Your task to perform on an android device: move an email to a new category in the gmail app Image 0: 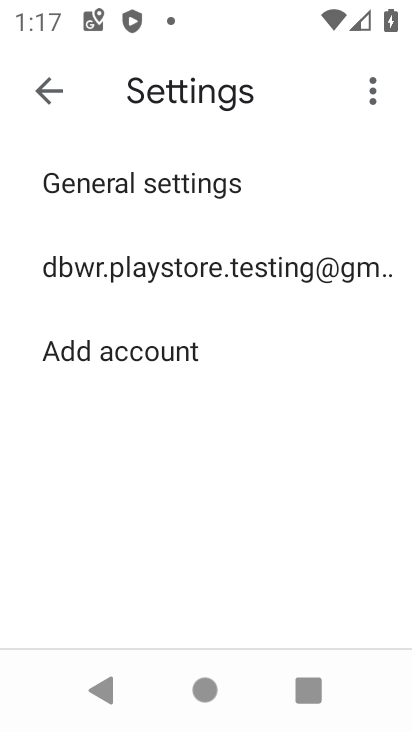
Step 0: press home button
Your task to perform on an android device: move an email to a new category in the gmail app Image 1: 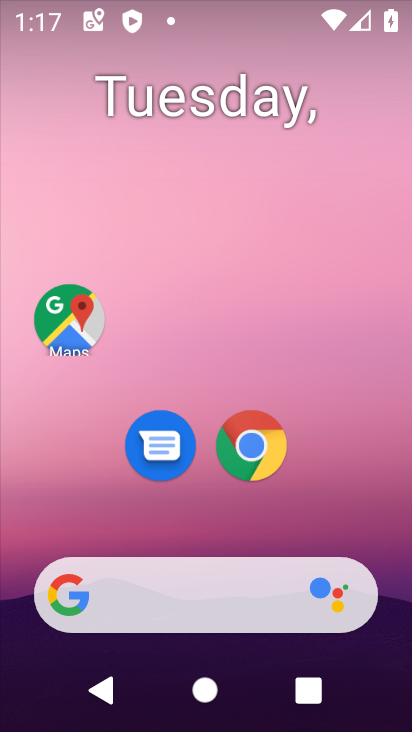
Step 1: drag from (365, 469) to (390, 42)
Your task to perform on an android device: move an email to a new category in the gmail app Image 2: 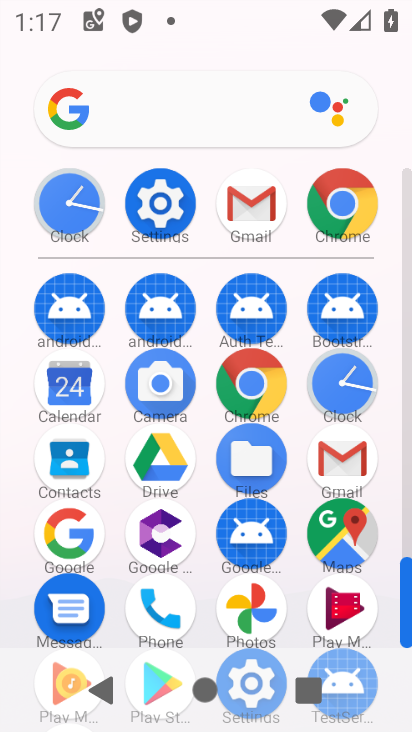
Step 2: click (249, 217)
Your task to perform on an android device: move an email to a new category in the gmail app Image 3: 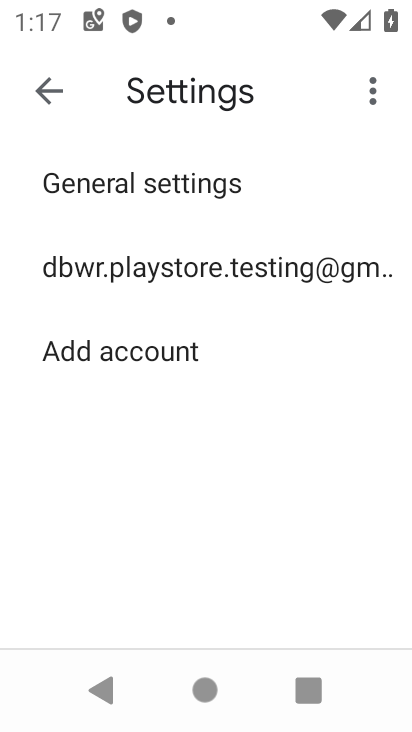
Step 3: click (52, 82)
Your task to perform on an android device: move an email to a new category in the gmail app Image 4: 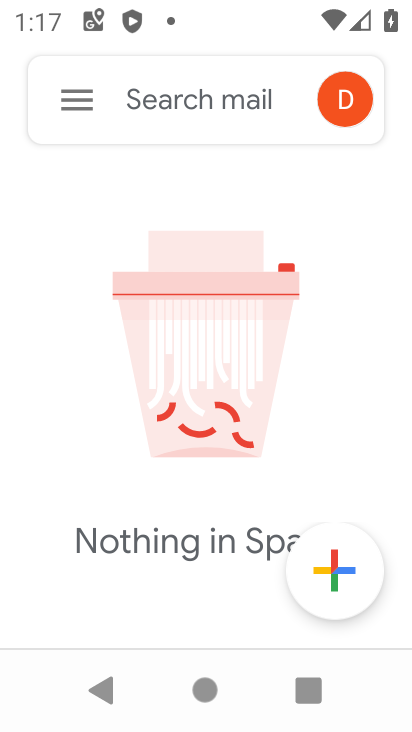
Step 4: click (66, 106)
Your task to perform on an android device: move an email to a new category in the gmail app Image 5: 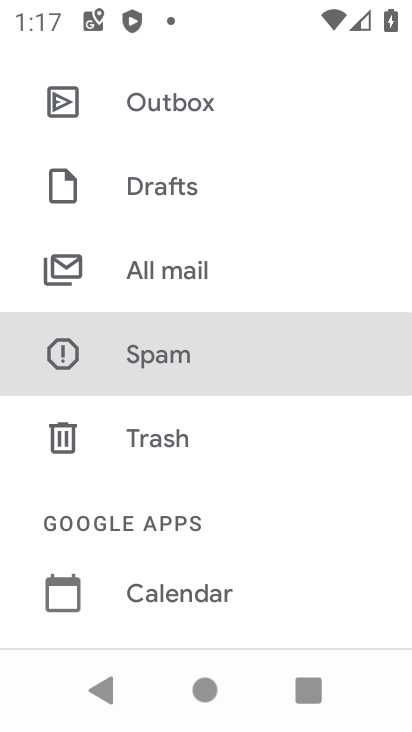
Step 5: drag from (249, 628) to (198, 199)
Your task to perform on an android device: move an email to a new category in the gmail app Image 6: 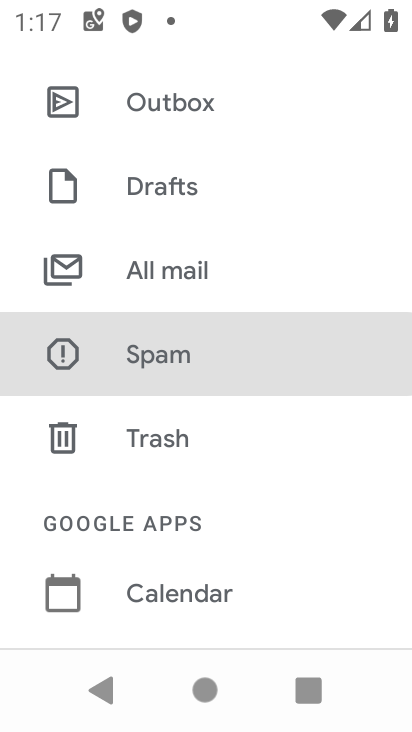
Step 6: drag from (196, 502) to (192, 160)
Your task to perform on an android device: move an email to a new category in the gmail app Image 7: 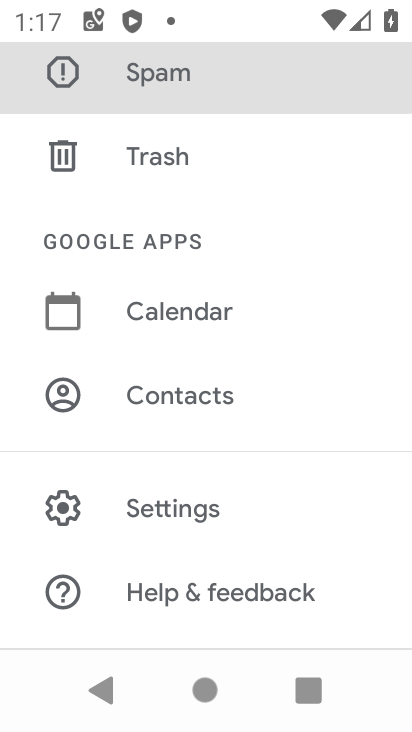
Step 7: click (143, 503)
Your task to perform on an android device: move an email to a new category in the gmail app Image 8: 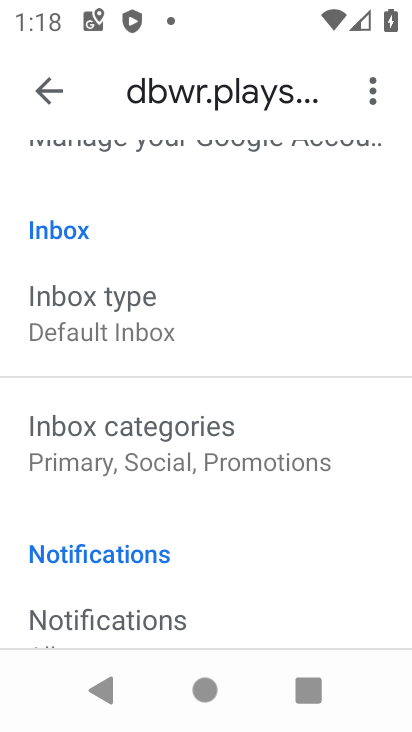
Step 8: click (54, 85)
Your task to perform on an android device: move an email to a new category in the gmail app Image 9: 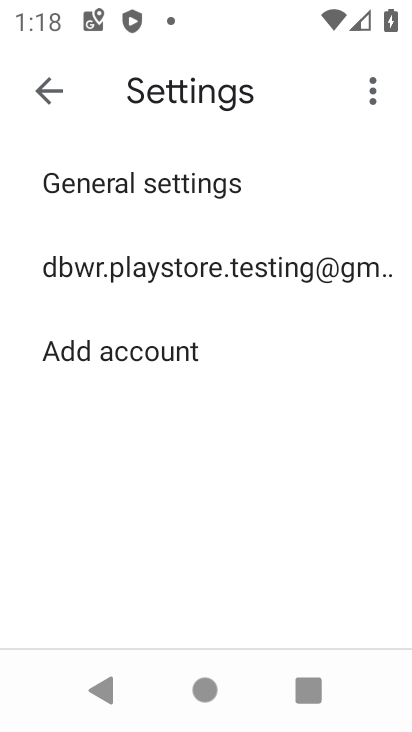
Step 9: click (54, 83)
Your task to perform on an android device: move an email to a new category in the gmail app Image 10: 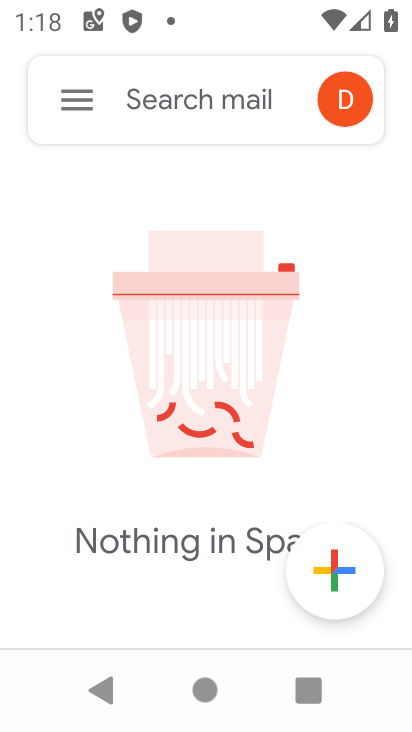
Step 10: click (73, 117)
Your task to perform on an android device: move an email to a new category in the gmail app Image 11: 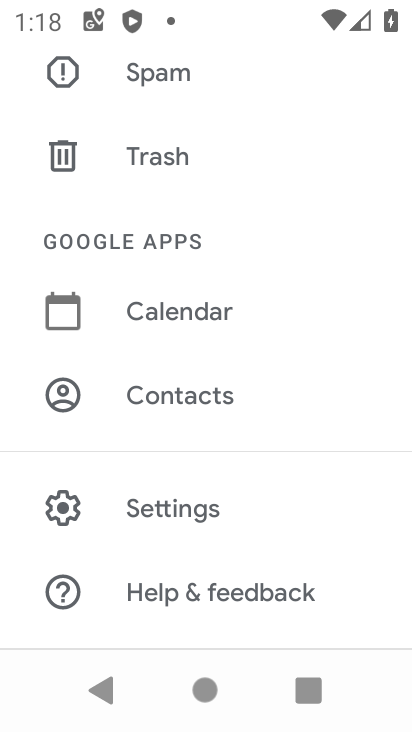
Step 11: drag from (101, 200) to (91, 690)
Your task to perform on an android device: move an email to a new category in the gmail app Image 12: 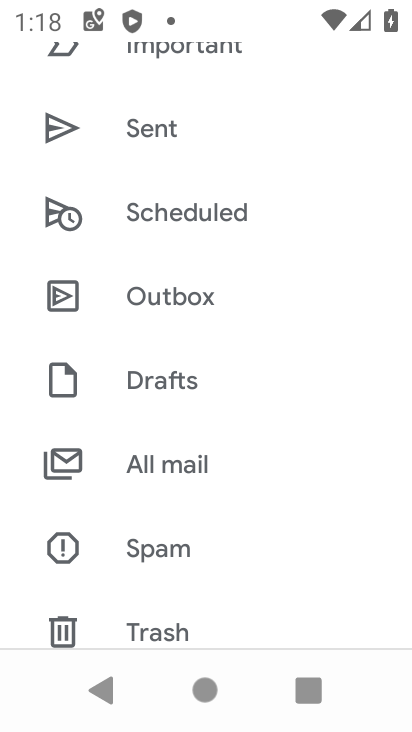
Step 12: drag from (145, 174) to (135, 684)
Your task to perform on an android device: move an email to a new category in the gmail app Image 13: 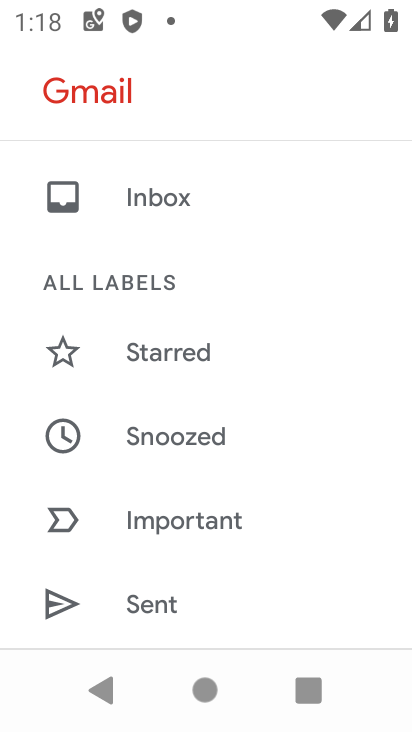
Step 13: click (145, 195)
Your task to perform on an android device: move an email to a new category in the gmail app Image 14: 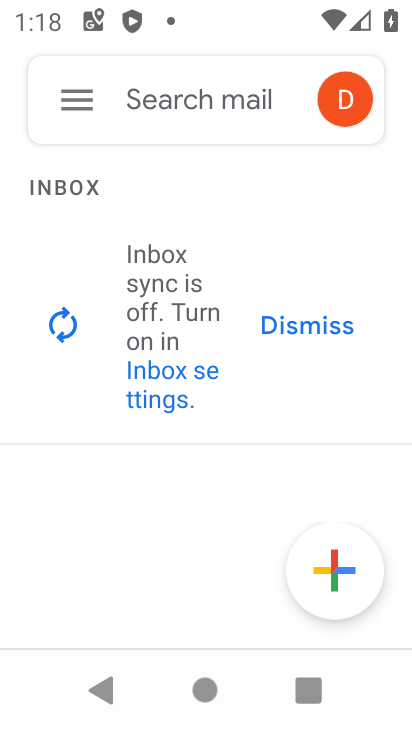
Step 14: task complete